Your task to perform on an android device: change your default location settings in chrome Image 0: 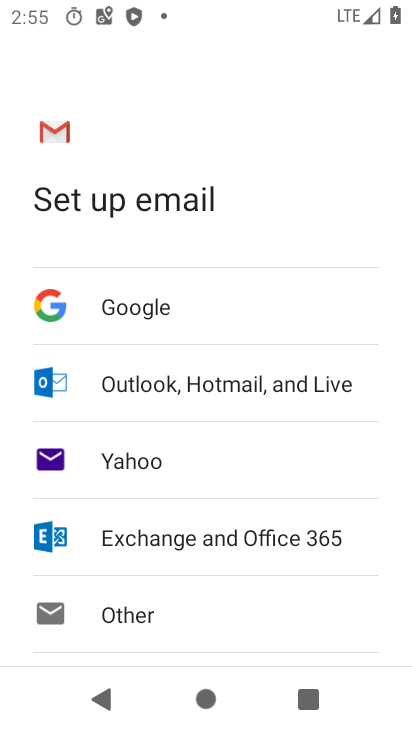
Step 0: press home button
Your task to perform on an android device: change your default location settings in chrome Image 1: 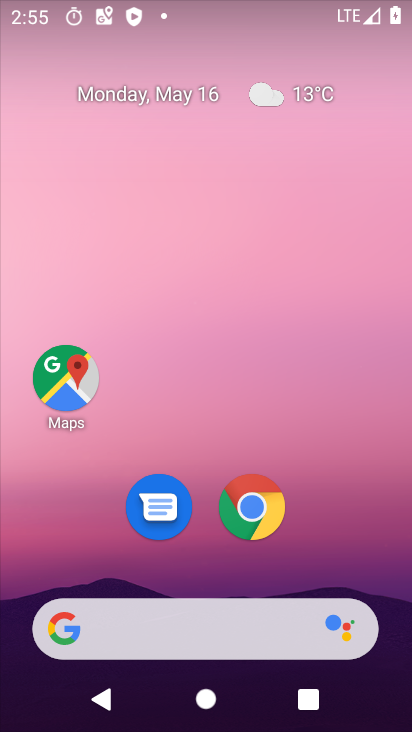
Step 1: drag from (355, 550) to (357, 60)
Your task to perform on an android device: change your default location settings in chrome Image 2: 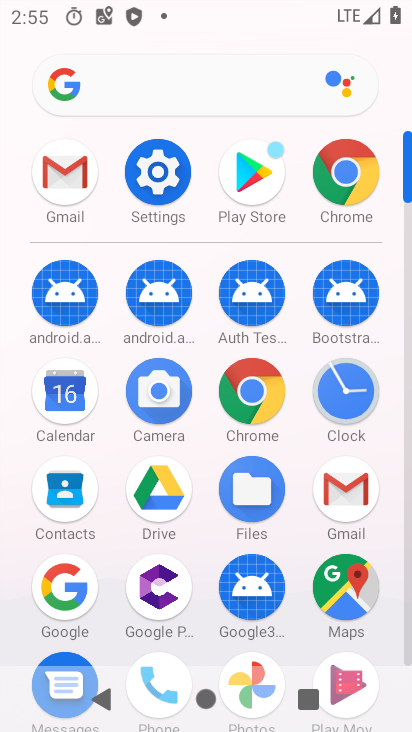
Step 2: click (350, 183)
Your task to perform on an android device: change your default location settings in chrome Image 3: 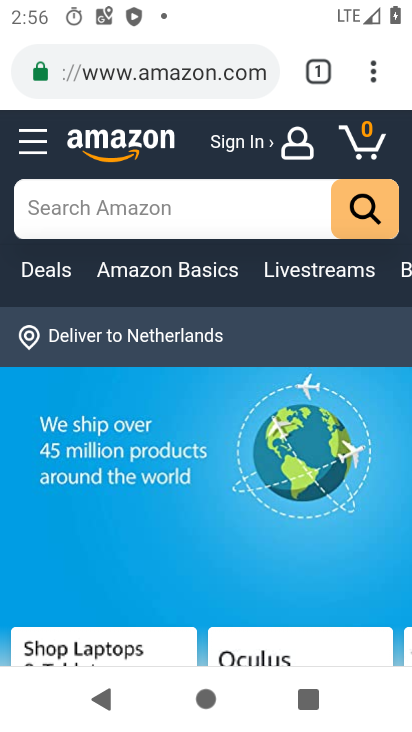
Step 3: click (372, 72)
Your task to perform on an android device: change your default location settings in chrome Image 4: 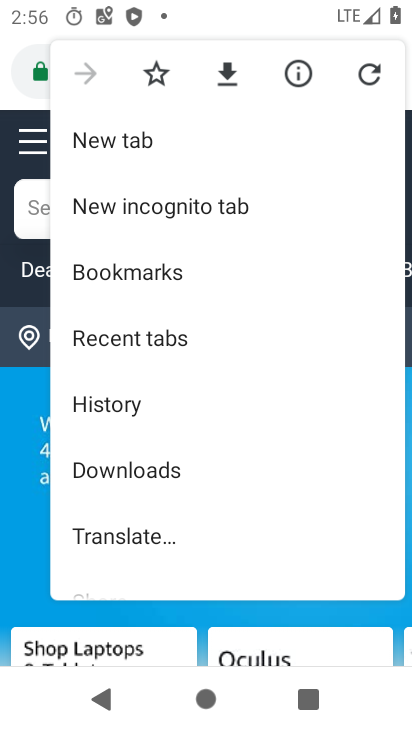
Step 4: drag from (312, 409) to (313, 368)
Your task to perform on an android device: change your default location settings in chrome Image 5: 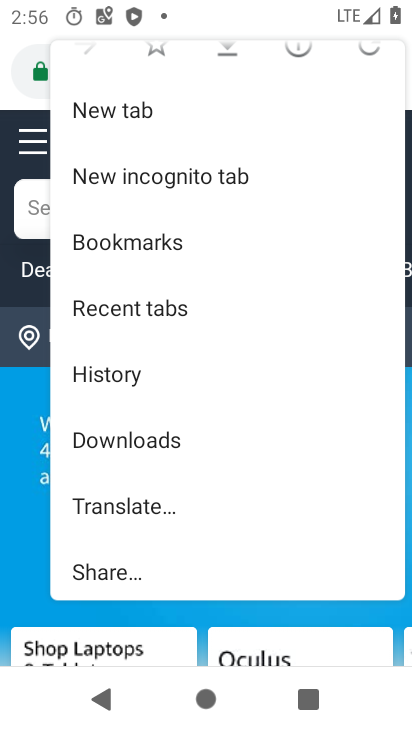
Step 5: drag from (315, 553) to (324, 405)
Your task to perform on an android device: change your default location settings in chrome Image 6: 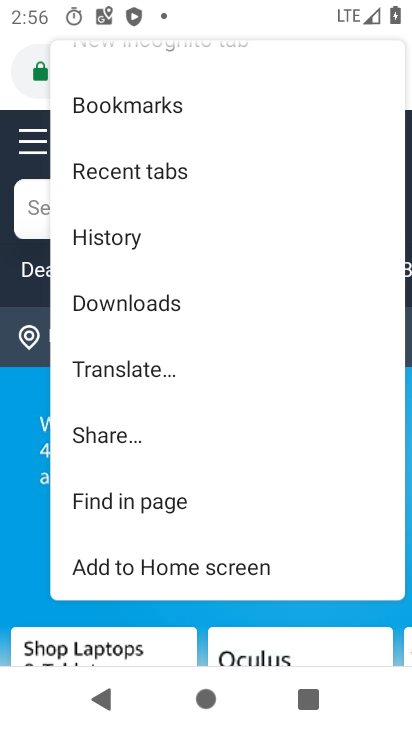
Step 6: click (278, 412)
Your task to perform on an android device: change your default location settings in chrome Image 7: 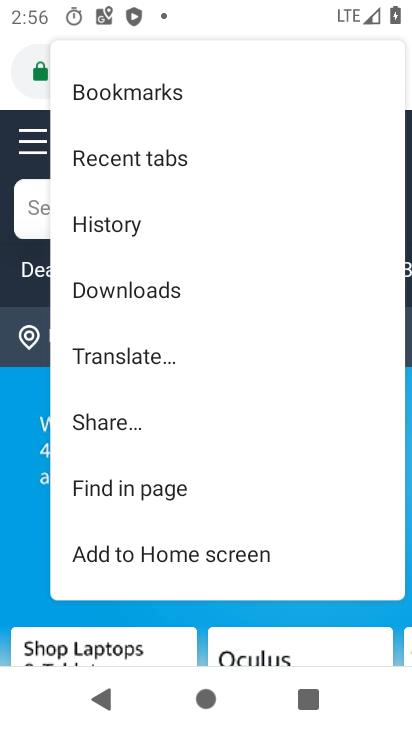
Step 7: drag from (322, 530) to (323, 364)
Your task to perform on an android device: change your default location settings in chrome Image 8: 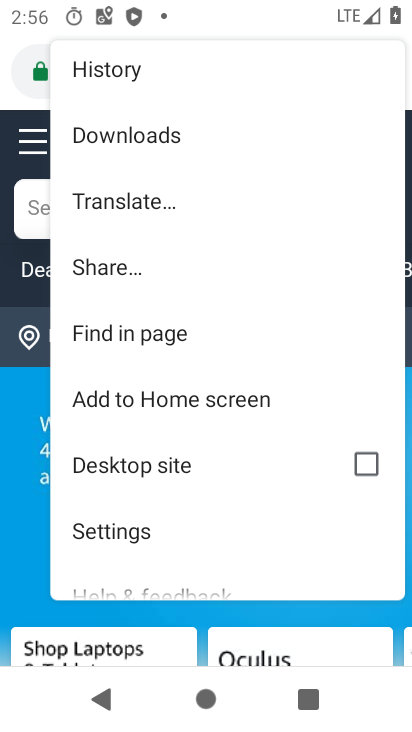
Step 8: click (153, 541)
Your task to perform on an android device: change your default location settings in chrome Image 9: 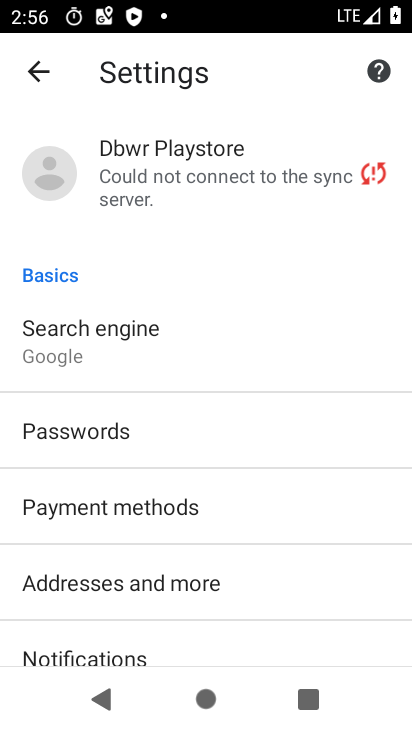
Step 9: drag from (282, 606) to (294, 389)
Your task to perform on an android device: change your default location settings in chrome Image 10: 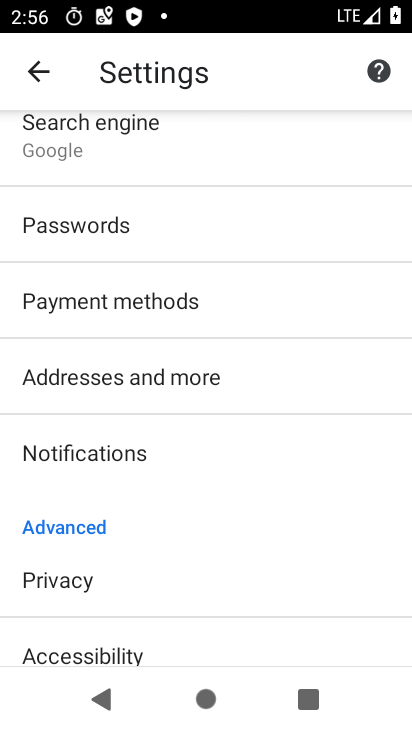
Step 10: drag from (291, 592) to (281, 437)
Your task to perform on an android device: change your default location settings in chrome Image 11: 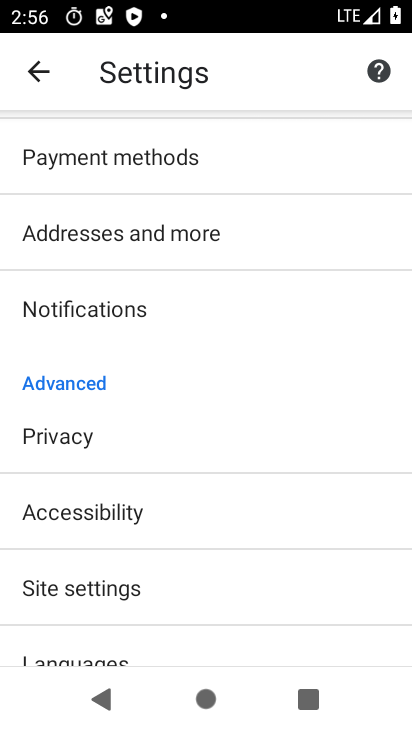
Step 11: drag from (276, 607) to (302, 361)
Your task to perform on an android device: change your default location settings in chrome Image 12: 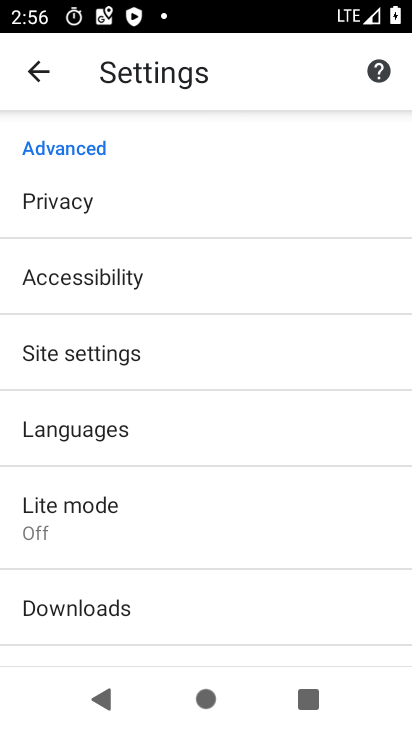
Step 12: drag from (290, 608) to (306, 415)
Your task to perform on an android device: change your default location settings in chrome Image 13: 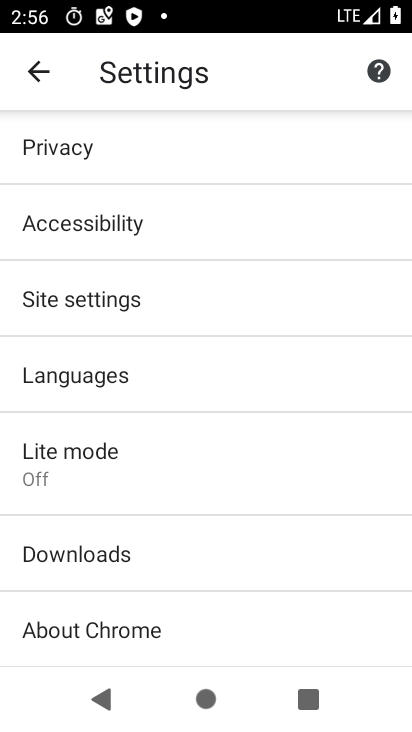
Step 13: drag from (307, 224) to (316, 443)
Your task to perform on an android device: change your default location settings in chrome Image 14: 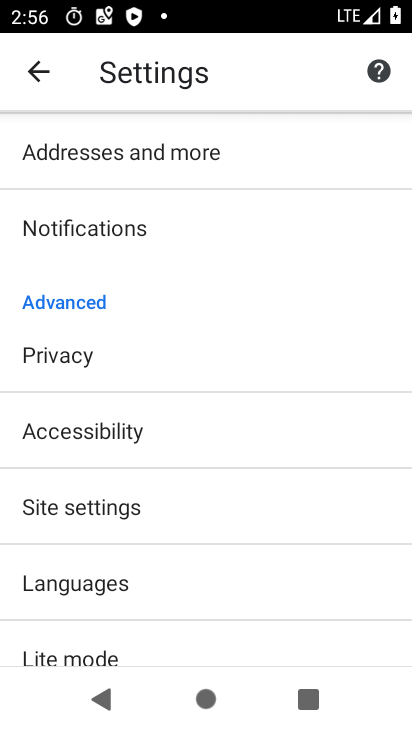
Step 14: drag from (297, 251) to (264, 444)
Your task to perform on an android device: change your default location settings in chrome Image 15: 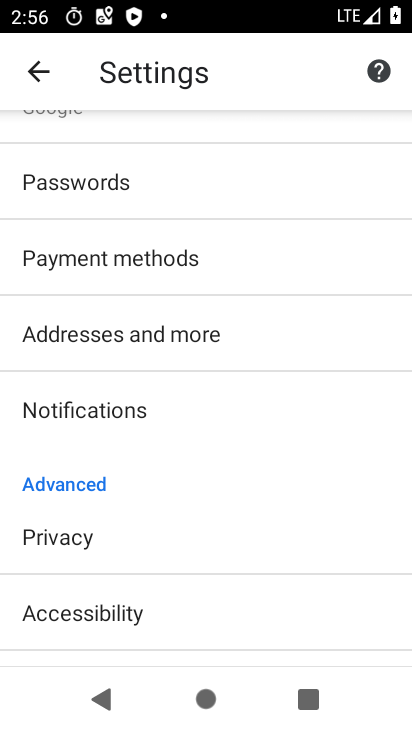
Step 15: drag from (298, 257) to (286, 434)
Your task to perform on an android device: change your default location settings in chrome Image 16: 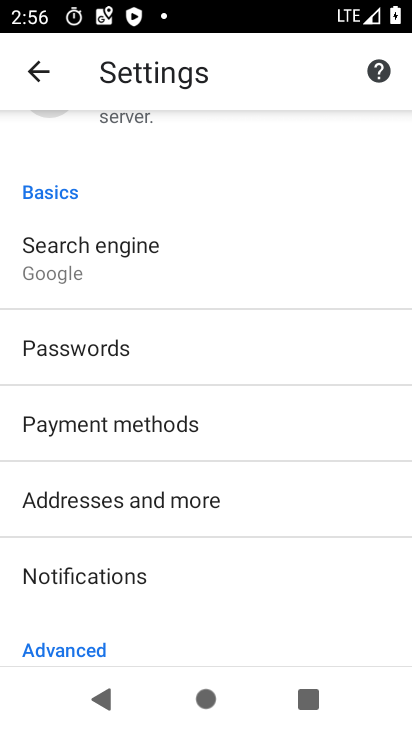
Step 16: drag from (252, 559) to (257, 336)
Your task to perform on an android device: change your default location settings in chrome Image 17: 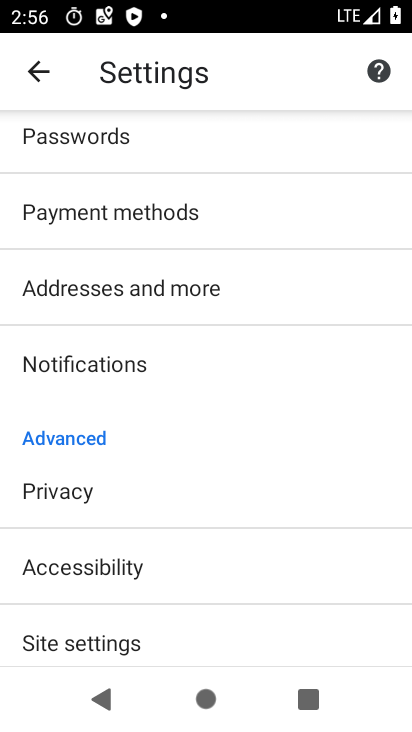
Step 17: drag from (255, 593) to (273, 394)
Your task to perform on an android device: change your default location settings in chrome Image 18: 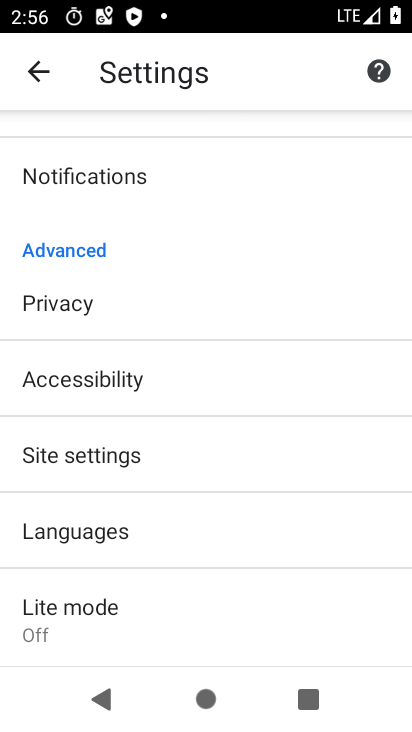
Step 18: click (270, 471)
Your task to perform on an android device: change your default location settings in chrome Image 19: 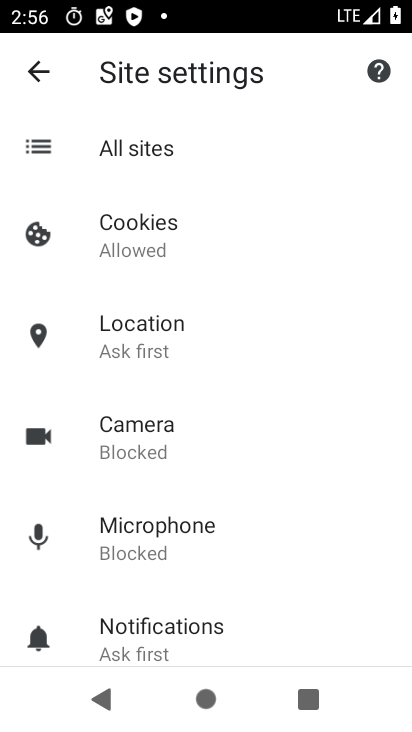
Step 19: click (165, 344)
Your task to perform on an android device: change your default location settings in chrome Image 20: 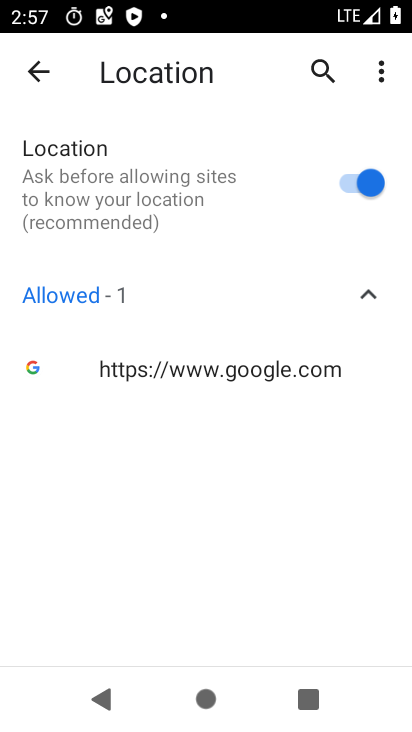
Step 20: click (354, 184)
Your task to perform on an android device: change your default location settings in chrome Image 21: 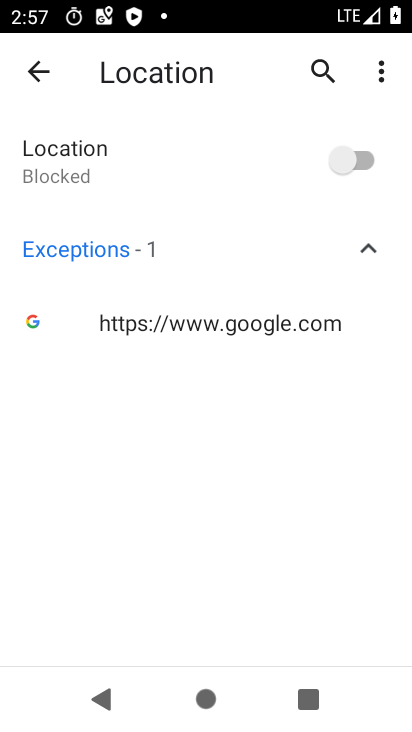
Step 21: task complete